Your task to perform on an android device: check android version Image 0: 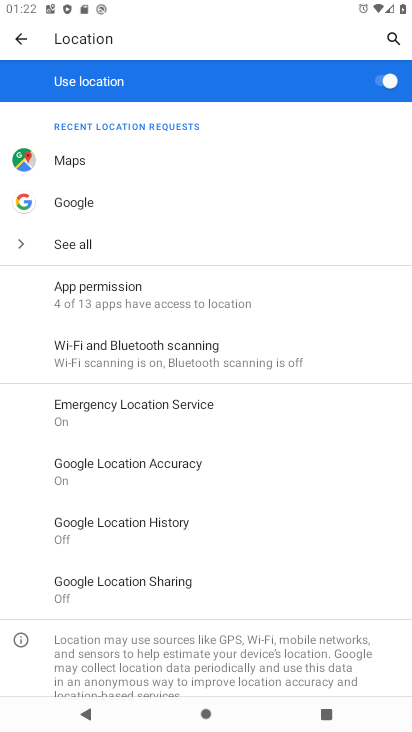
Step 0: press home button
Your task to perform on an android device: check android version Image 1: 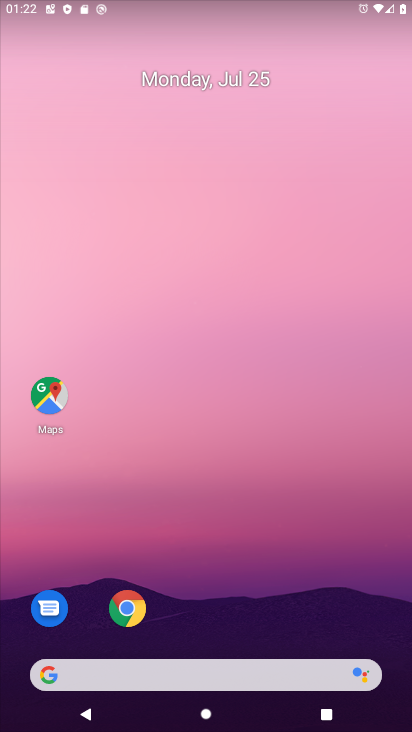
Step 1: drag from (212, 642) to (240, 0)
Your task to perform on an android device: check android version Image 2: 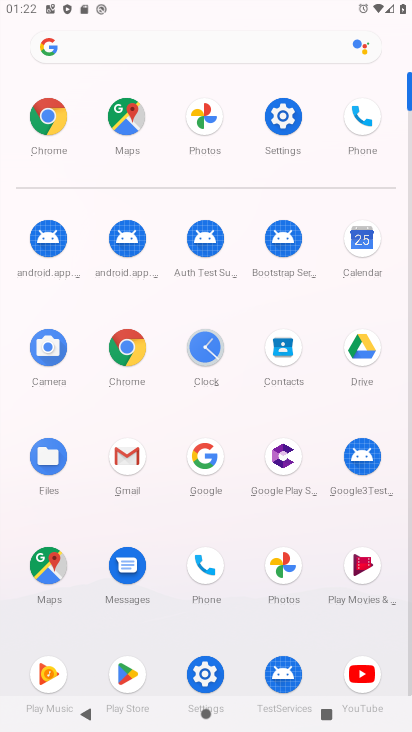
Step 2: click (277, 117)
Your task to perform on an android device: check android version Image 3: 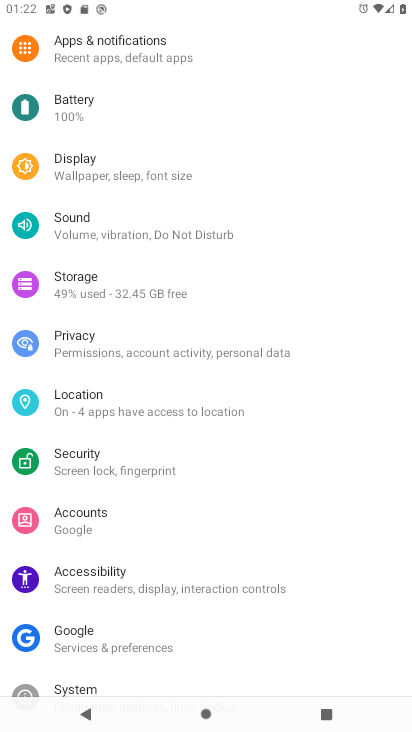
Step 3: drag from (265, 567) to (259, 107)
Your task to perform on an android device: check android version Image 4: 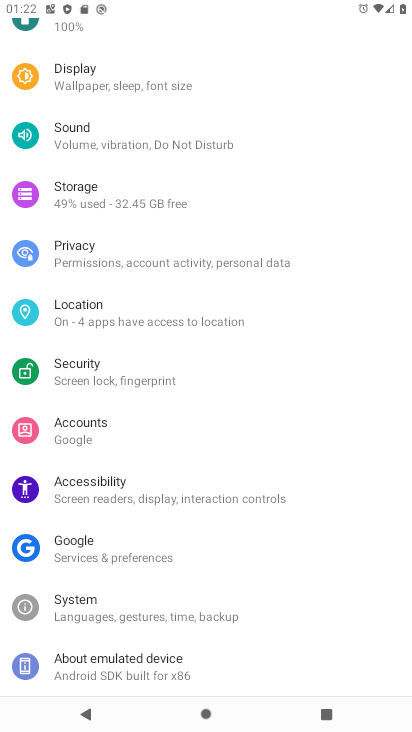
Step 4: click (147, 650)
Your task to perform on an android device: check android version Image 5: 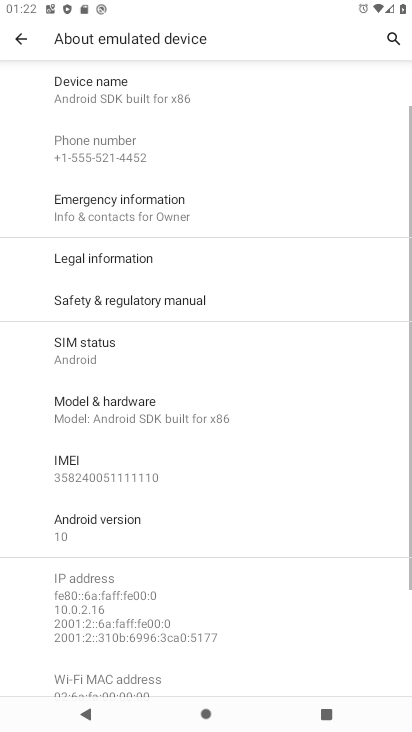
Step 5: click (101, 526)
Your task to perform on an android device: check android version Image 6: 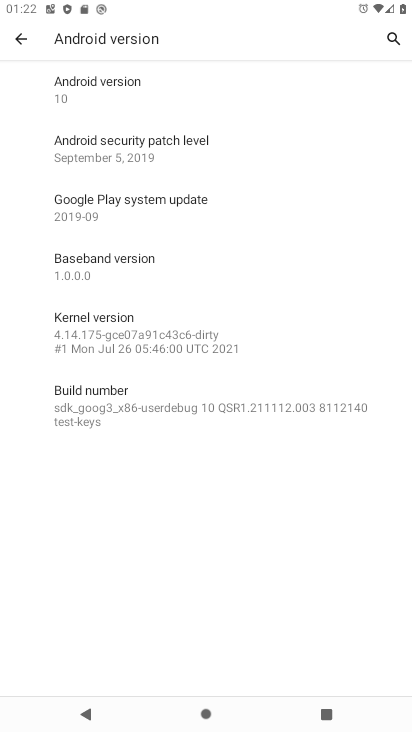
Step 6: task complete